Your task to perform on an android device: check storage Image 0: 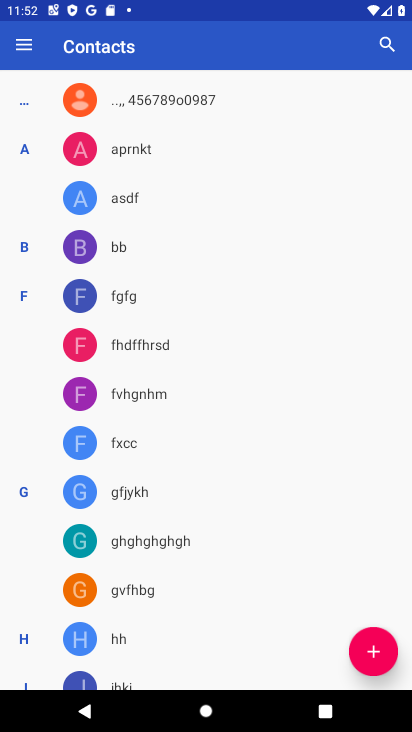
Step 0: press home button
Your task to perform on an android device: check storage Image 1: 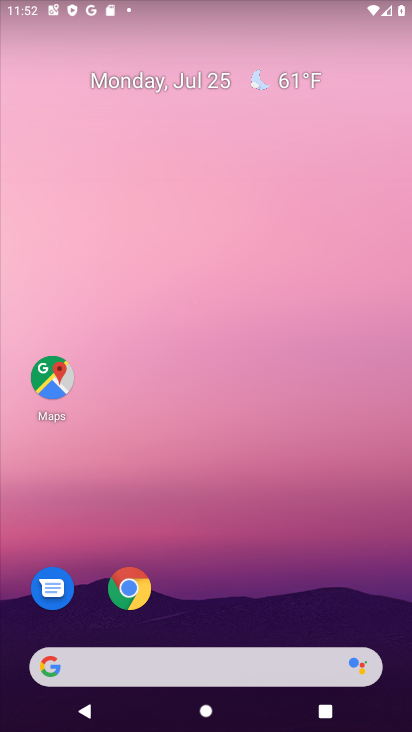
Step 1: drag from (226, 624) to (214, 0)
Your task to perform on an android device: check storage Image 2: 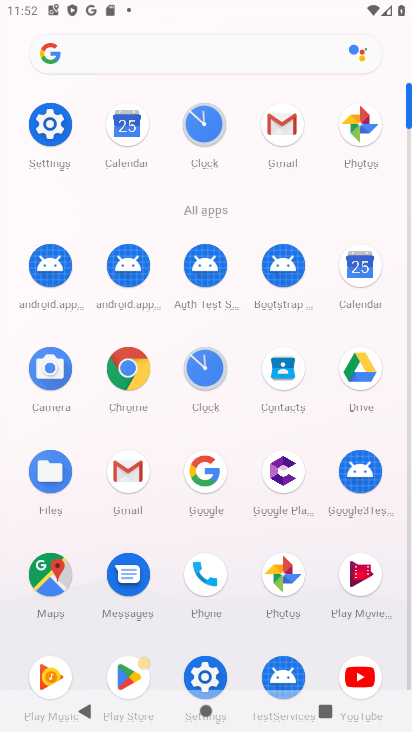
Step 2: click (49, 114)
Your task to perform on an android device: check storage Image 3: 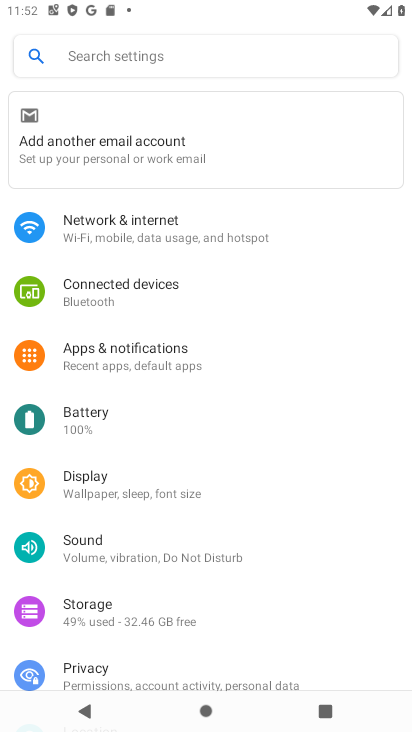
Step 3: click (130, 603)
Your task to perform on an android device: check storage Image 4: 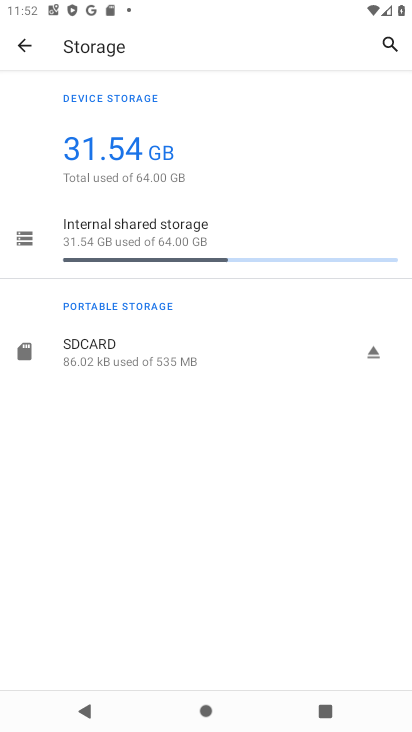
Step 4: task complete